Your task to perform on an android device: change the clock display to show seconds Image 0: 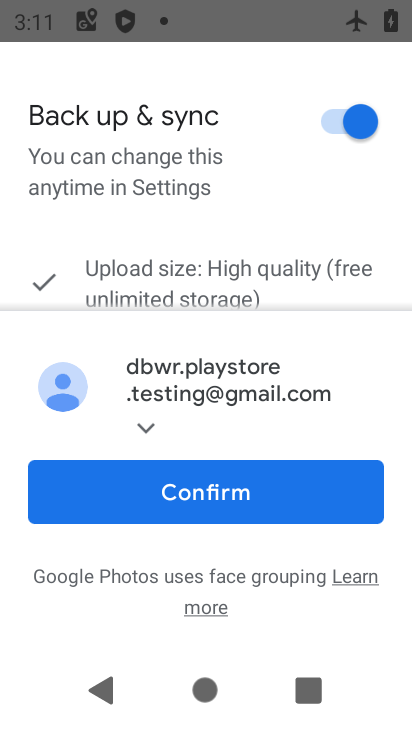
Step 0: press home button
Your task to perform on an android device: change the clock display to show seconds Image 1: 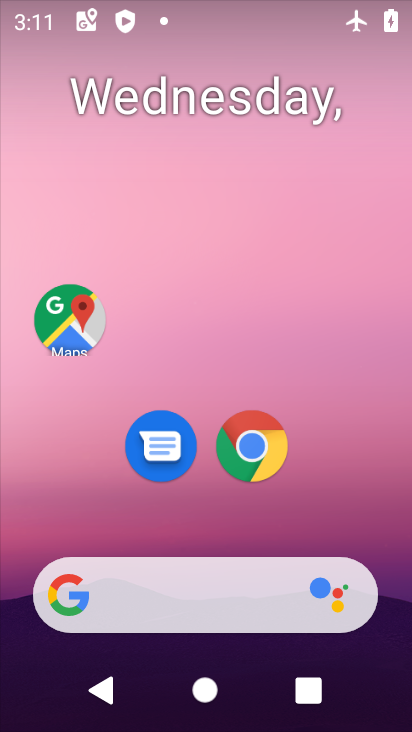
Step 1: drag from (214, 526) to (238, 137)
Your task to perform on an android device: change the clock display to show seconds Image 2: 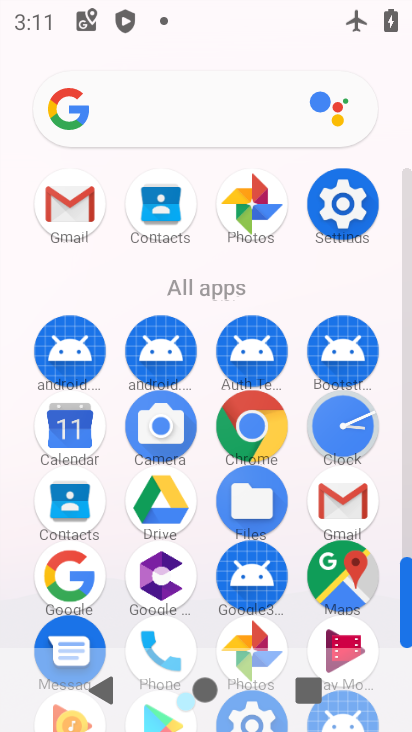
Step 2: click (344, 429)
Your task to perform on an android device: change the clock display to show seconds Image 3: 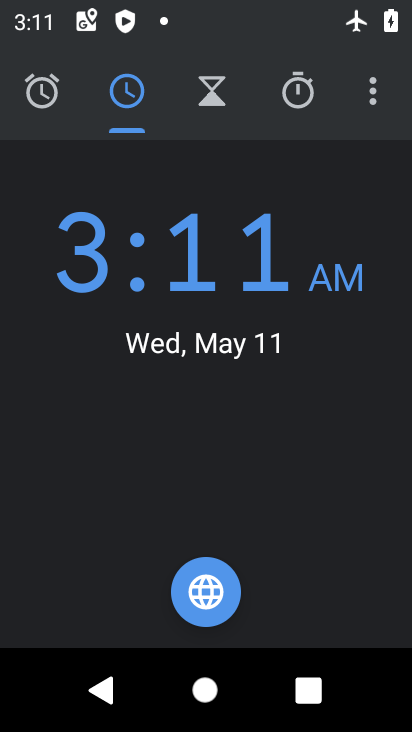
Step 3: click (354, 97)
Your task to perform on an android device: change the clock display to show seconds Image 4: 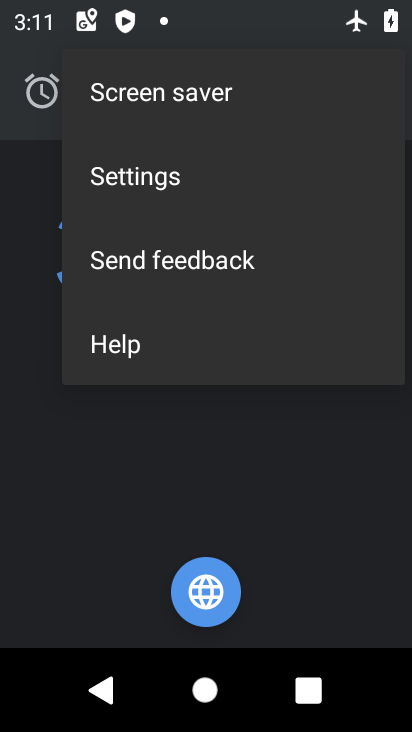
Step 4: click (150, 153)
Your task to perform on an android device: change the clock display to show seconds Image 5: 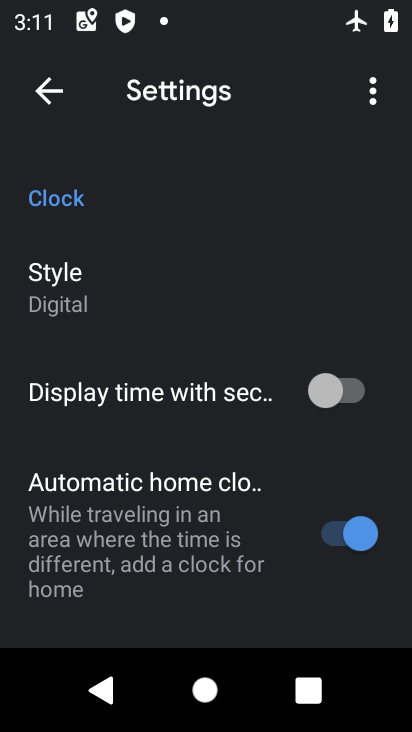
Step 5: click (328, 392)
Your task to perform on an android device: change the clock display to show seconds Image 6: 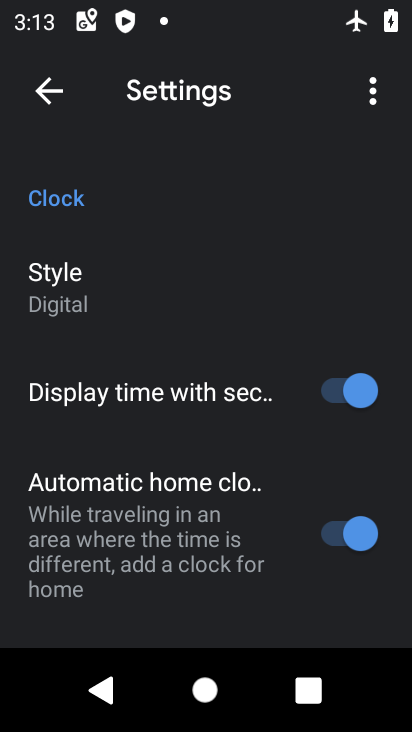
Step 6: task complete